Your task to perform on an android device: turn off airplane mode Image 0: 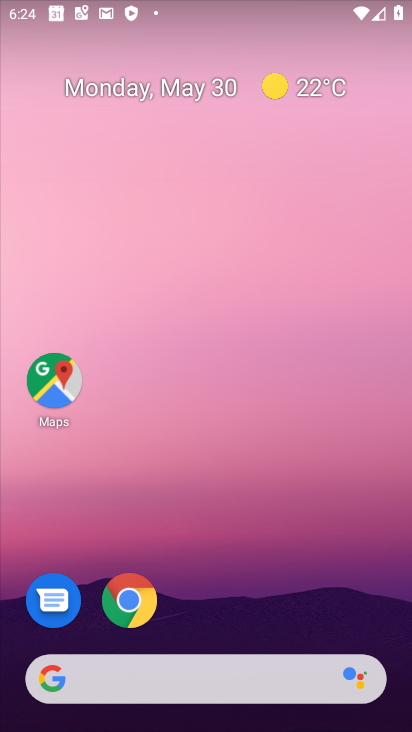
Step 0: press home button
Your task to perform on an android device: turn off airplane mode Image 1: 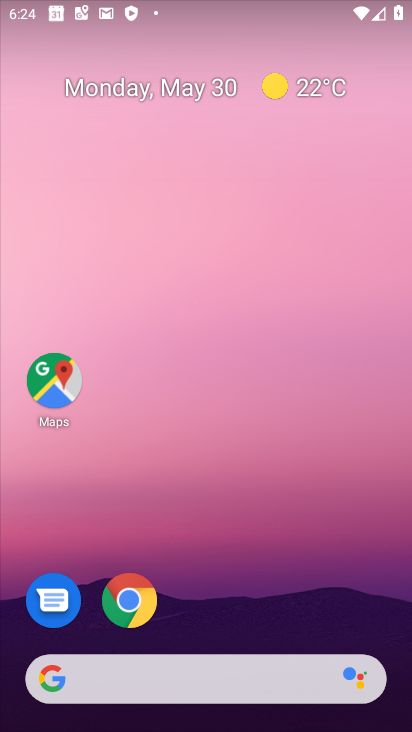
Step 1: task complete